Your task to perform on an android device: Open Google Maps Image 0: 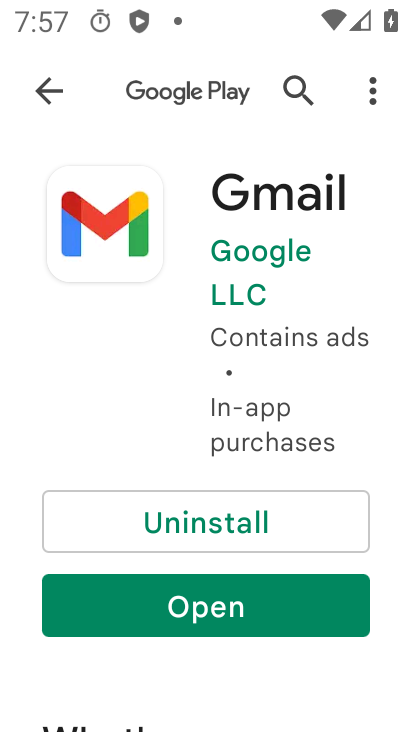
Step 0: press home button
Your task to perform on an android device: Open Google Maps Image 1: 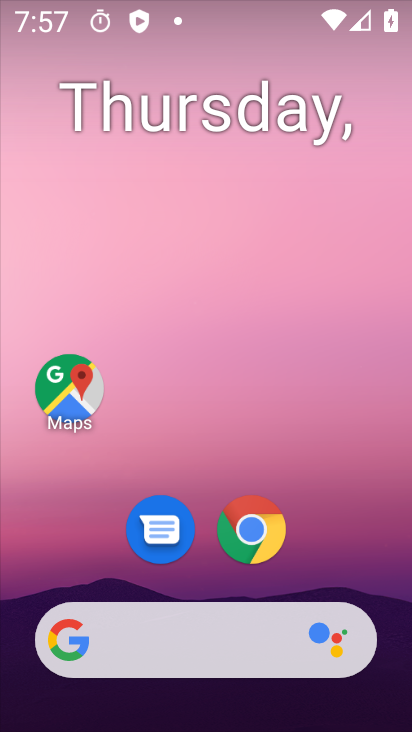
Step 1: click (53, 390)
Your task to perform on an android device: Open Google Maps Image 2: 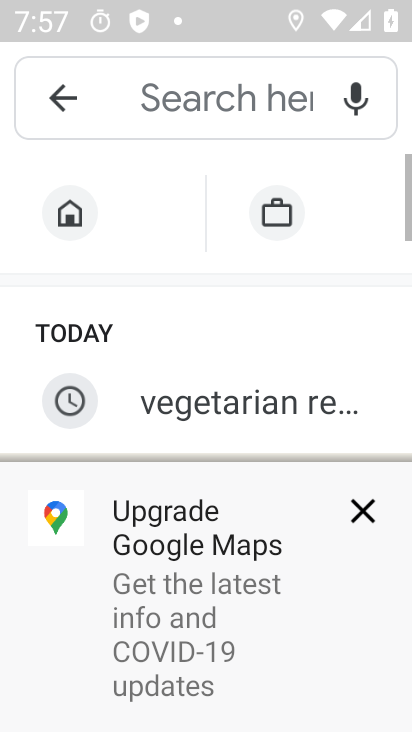
Step 2: click (54, 85)
Your task to perform on an android device: Open Google Maps Image 3: 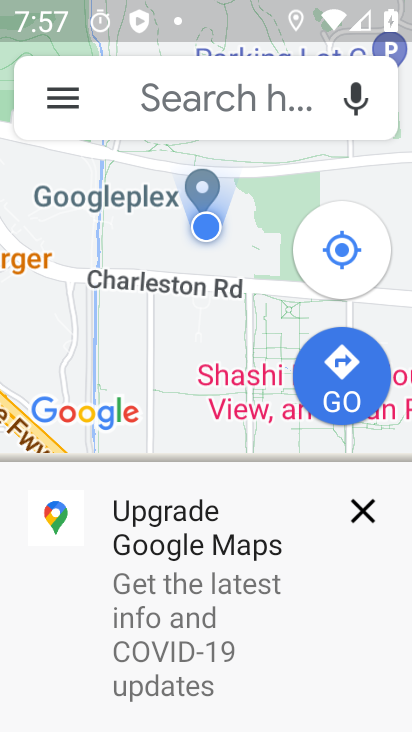
Step 3: click (364, 508)
Your task to perform on an android device: Open Google Maps Image 4: 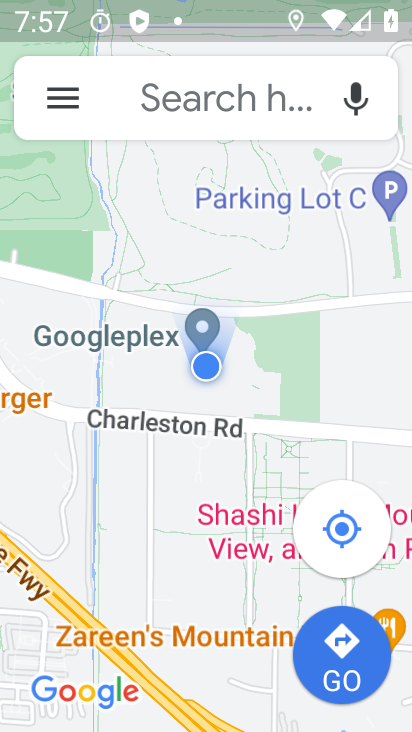
Step 4: task complete